Your task to perform on an android device: View the shopping cart on ebay. Add razer kraken to the cart on ebay Image 0: 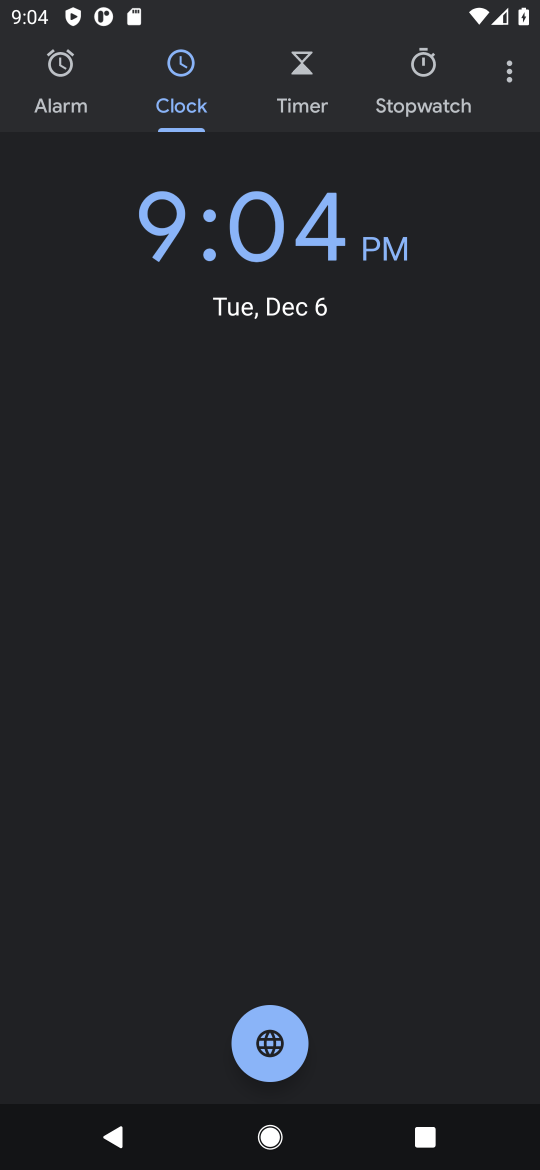
Step 0: press home button
Your task to perform on an android device: View the shopping cart on ebay. Add razer kraken to the cart on ebay Image 1: 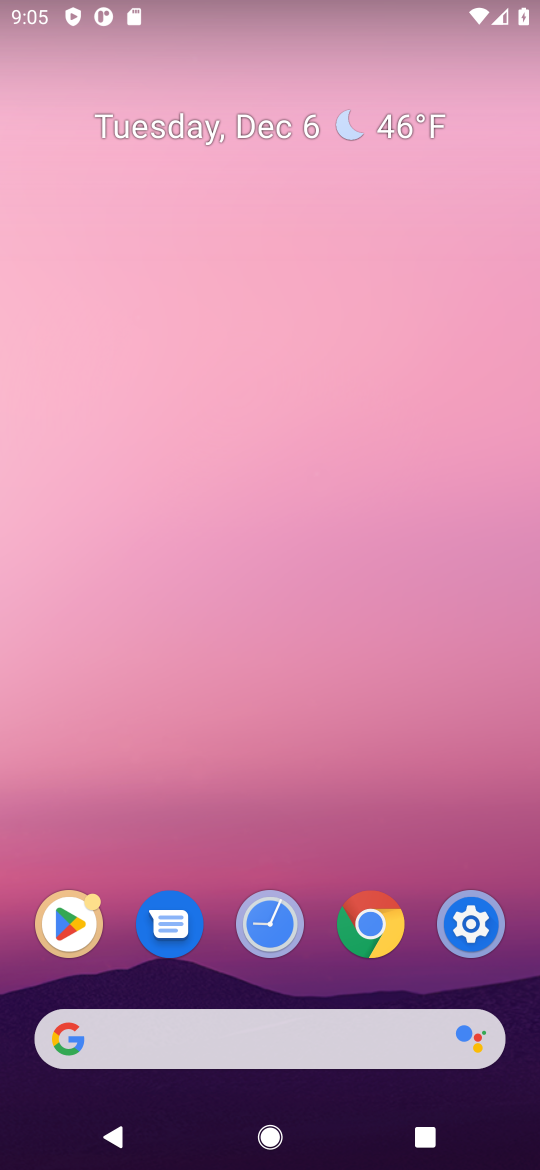
Step 1: click (318, 1048)
Your task to perform on an android device: View the shopping cart on ebay. Add razer kraken to the cart on ebay Image 2: 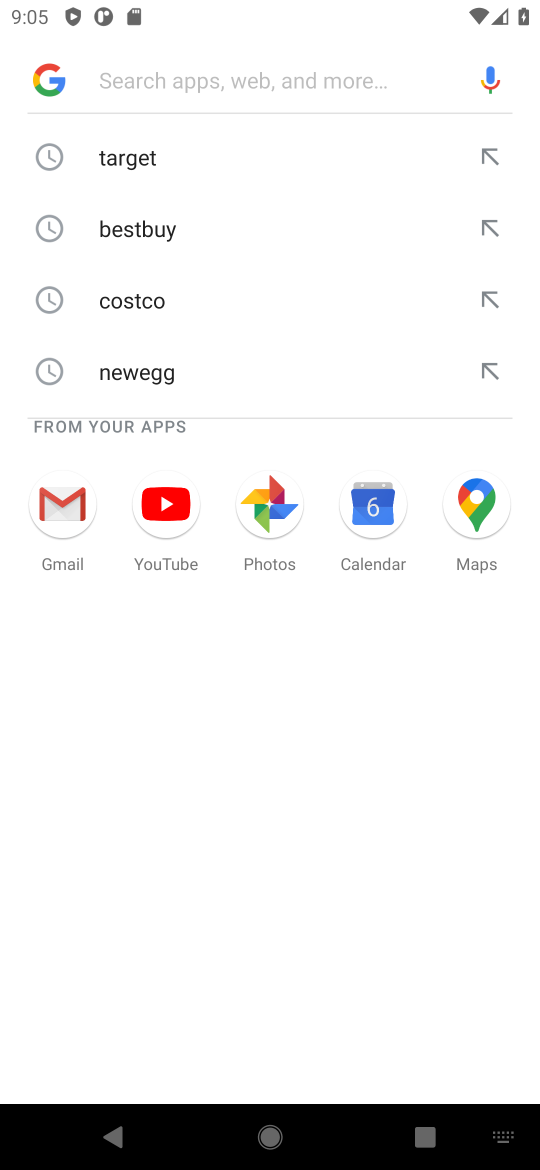
Step 2: type "ebay.com"
Your task to perform on an android device: View the shopping cart on ebay. Add razer kraken to the cart on ebay Image 3: 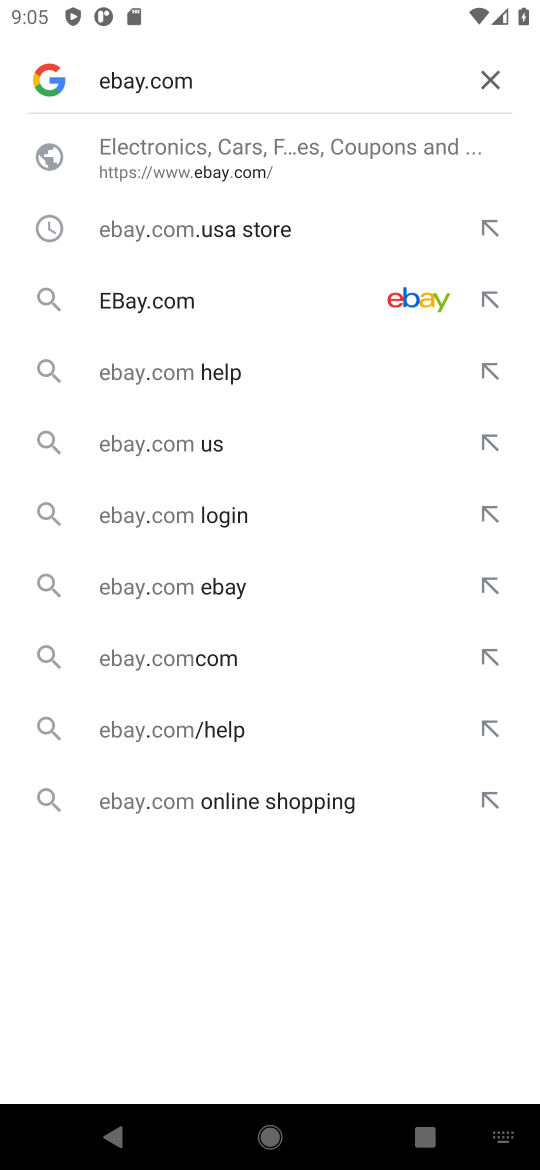
Step 3: click (141, 178)
Your task to perform on an android device: View the shopping cart on ebay. Add razer kraken to the cart on ebay Image 4: 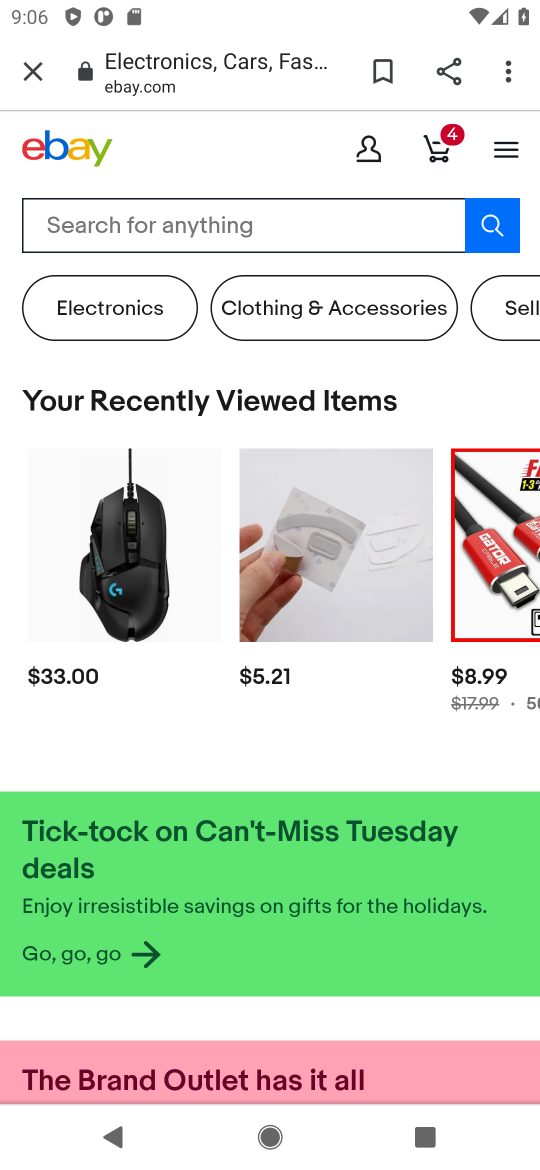
Step 4: click (141, 222)
Your task to perform on an android device: View the shopping cart on ebay. Add razer kraken to the cart on ebay Image 5: 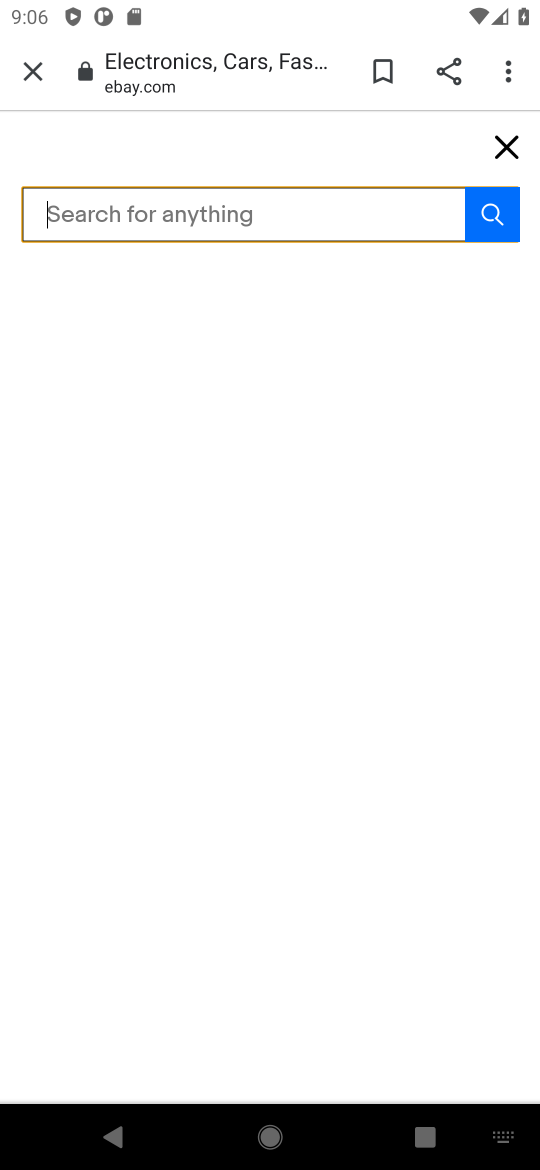
Step 5: type "razer karken"
Your task to perform on an android device: View the shopping cart on ebay. Add razer kraken to the cart on ebay Image 6: 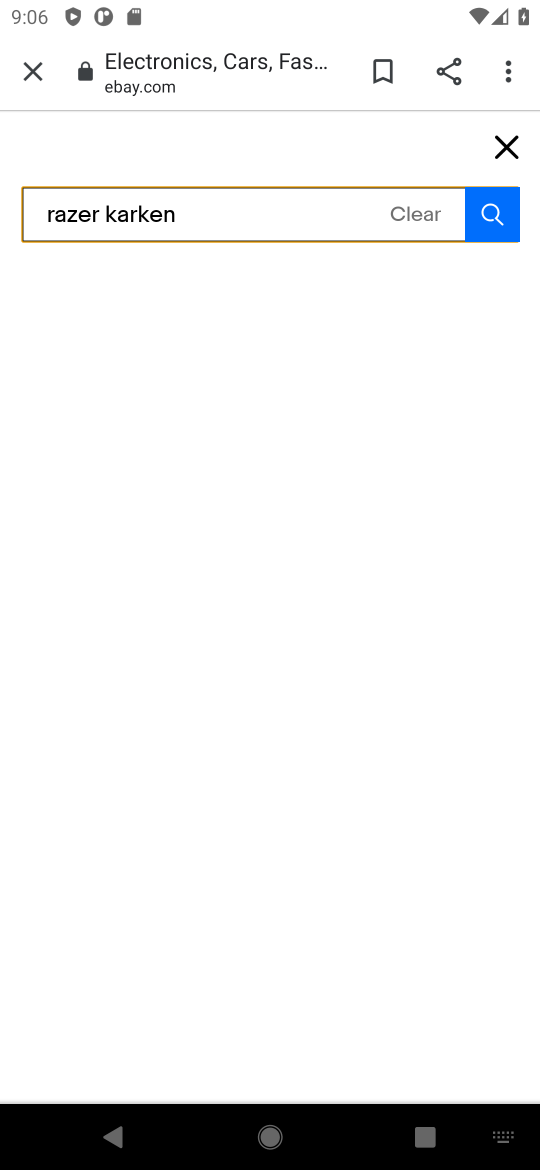
Step 6: task complete